Your task to perform on an android device: Go to wifi settings Image 0: 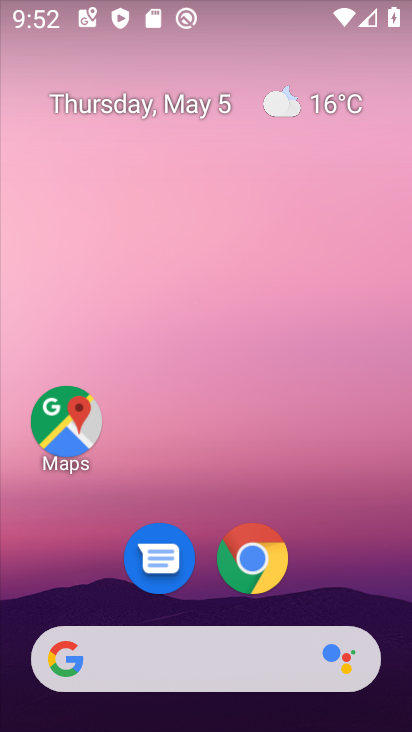
Step 0: drag from (347, 616) to (336, 132)
Your task to perform on an android device: Go to wifi settings Image 1: 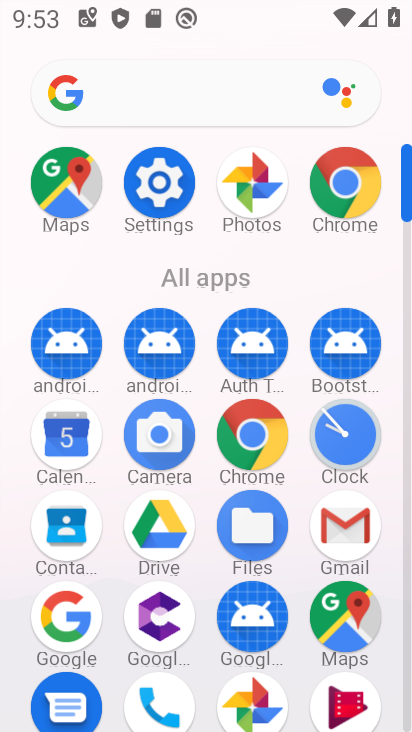
Step 1: click (169, 198)
Your task to perform on an android device: Go to wifi settings Image 2: 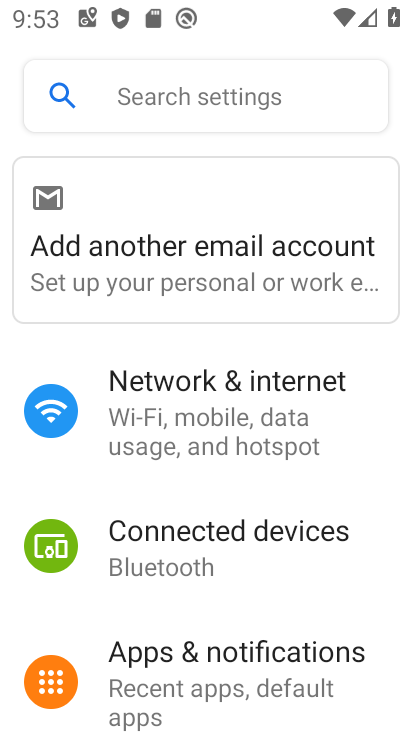
Step 2: click (237, 427)
Your task to perform on an android device: Go to wifi settings Image 3: 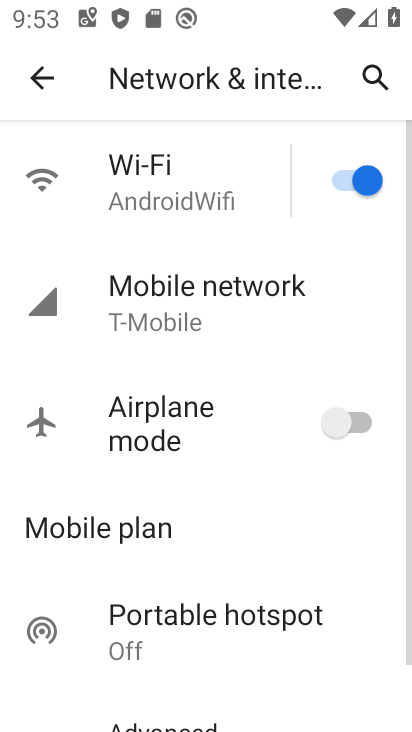
Step 3: click (149, 162)
Your task to perform on an android device: Go to wifi settings Image 4: 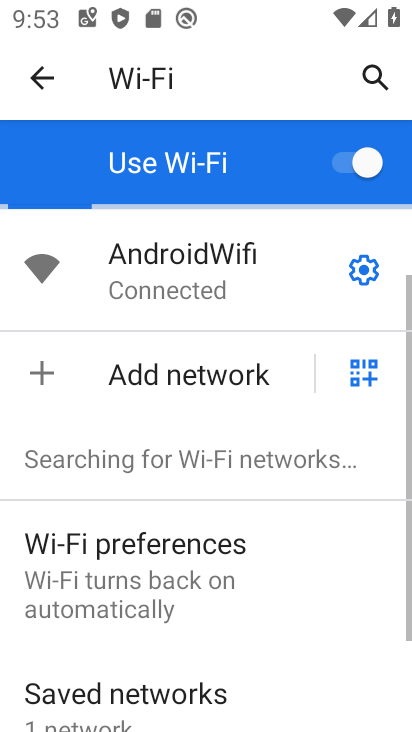
Step 4: task complete